Your task to perform on an android device: Open calendar and show me the fourth week of next month Image 0: 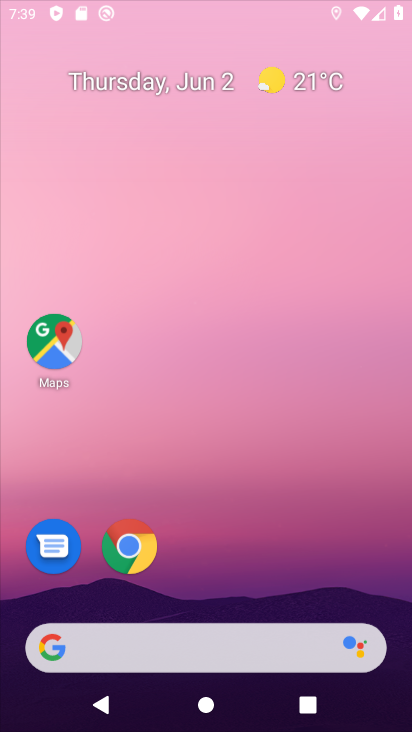
Step 0: drag from (325, 528) to (325, 176)
Your task to perform on an android device: Open calendar and show me the fourth week of next month Image 1: 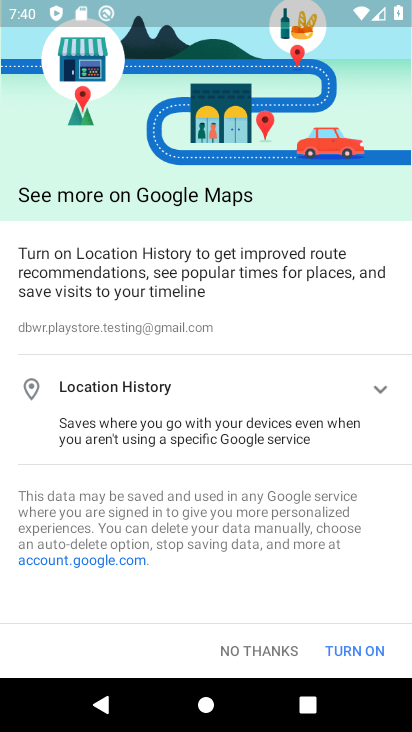
Step 1: click (271, 649)
Your task to perform on an android device: Open calendar and show me the fourth week of next month Image 2: 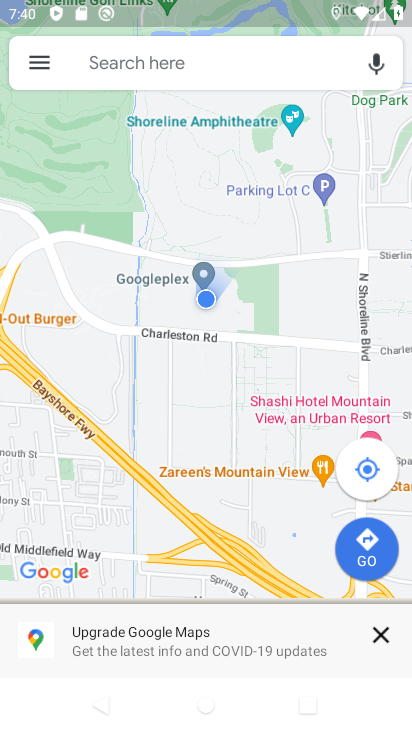
Step 2: press home button
Your task to perform on an android device: Open calendar and show me the fourth week of next month Image 3: 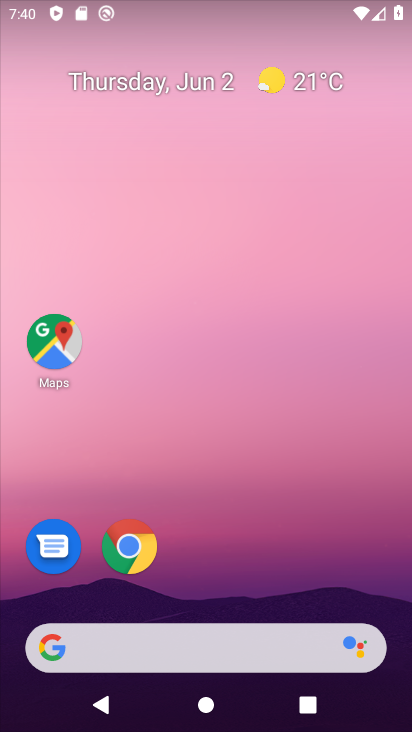
Step 3: drag from (356, 570) to (342, 230)
Your task to perform on an android device: Open calendar and show me the fourth week of next month Image 4: 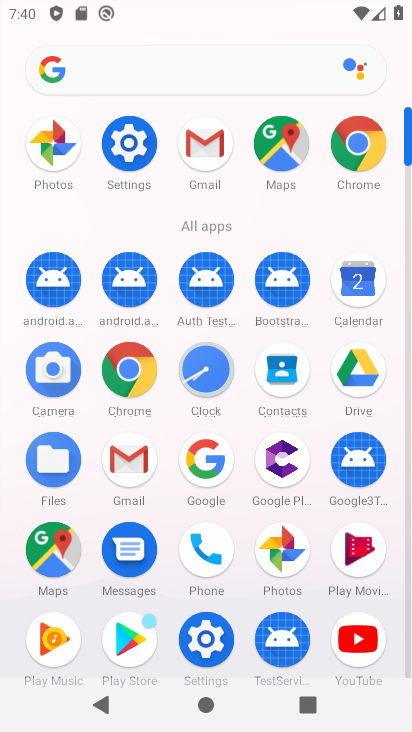
Step 4: click (362, 299)
Your task to perform on an android device: Open calendar and show me the fourth week of next month Image 5: 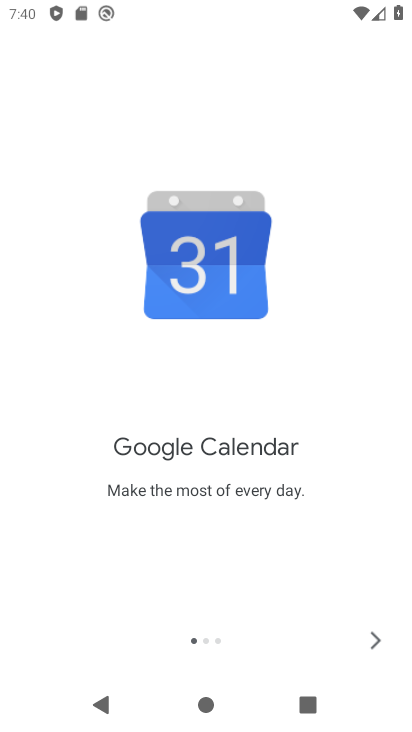
Step 5: click (373, 645)
Your task to perform on an android device: Open calendar and show me the fourth week of next month Image 6: 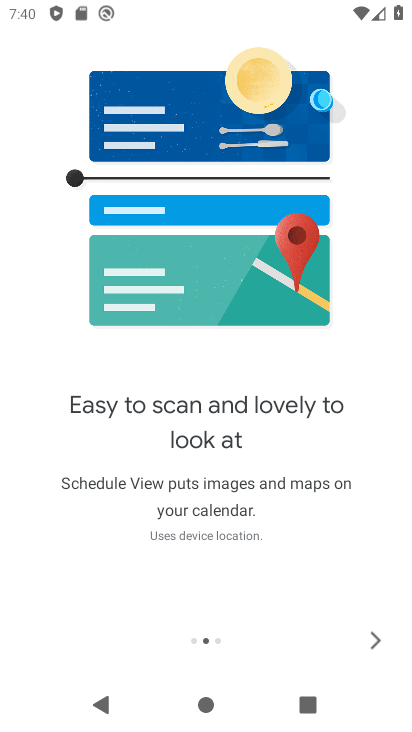
Step 6: click (373, 645)
Your task to perform on an android device: Open calendar and show me the fourth week of next month Image 7: 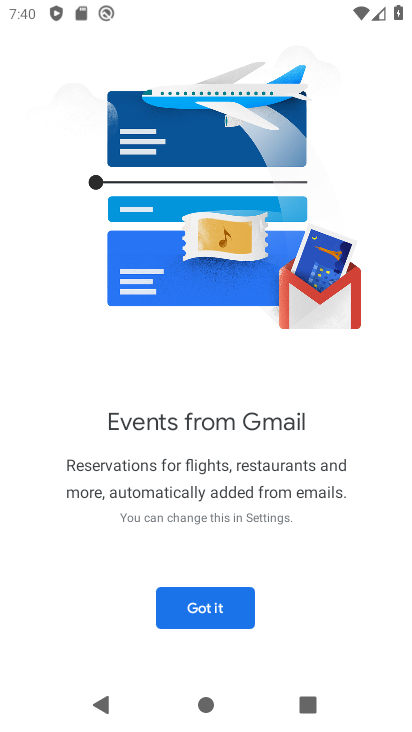
Step 7: click (231, 602)
Your task to perform on an android device: Open calendar and show me the fourth week of next month Image 8: 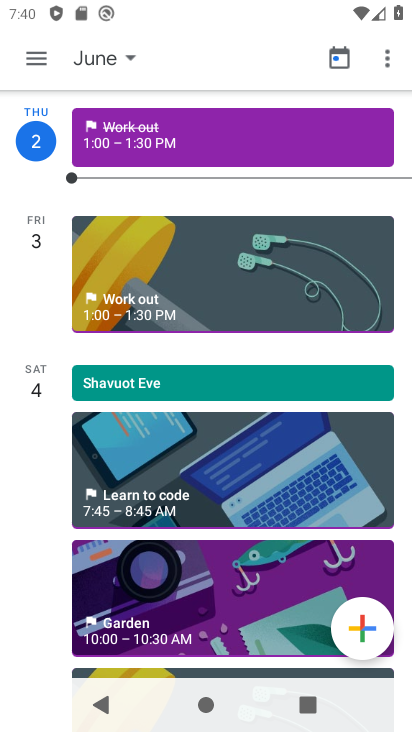
Step 8: click (91, 56)
Your task to perform on an android device: Open calendar and show me the fourth week of next month Image 9: 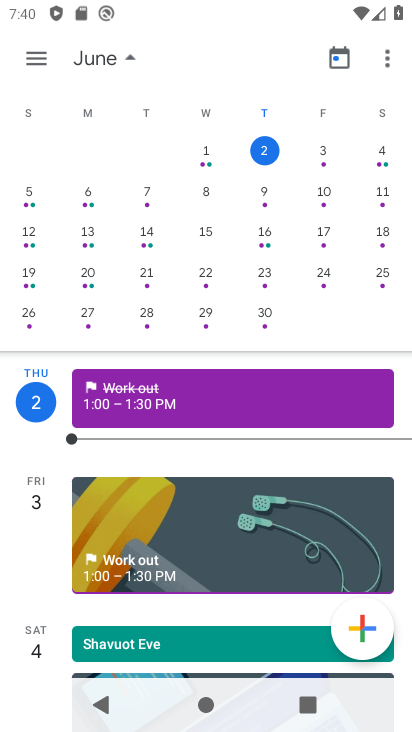
Step 9: drag from (378, 224) to (0, 222)
Your task to perform on an android device: Open calendar and show me the fourth week of next month Image 10: 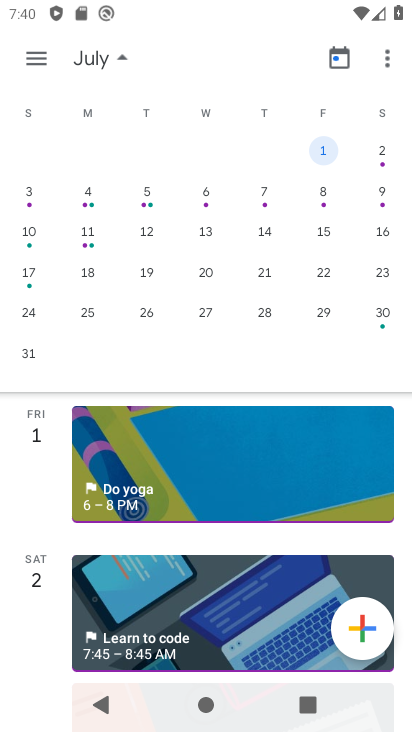
Step 10: click (22, 269)
Your task to perform on an android device: Open calendar and show me the fourth week of next month Image 11: 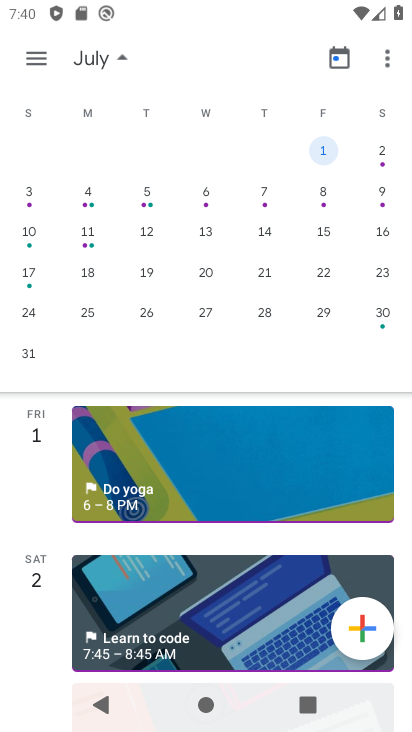
Step 11: click (34, 272)
Your task to perform on an android device: Open calendar and show me the fourth week of next month Image 12: 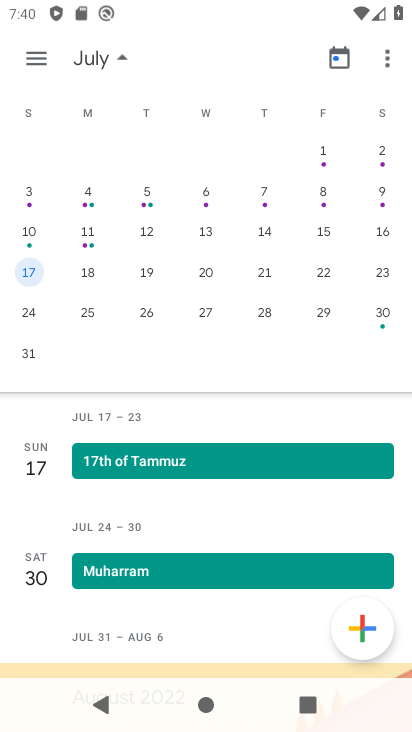
Step 12: task complete